Your task to perform on an android device: read, delete, or share a saved page in the chrome app Image 0: 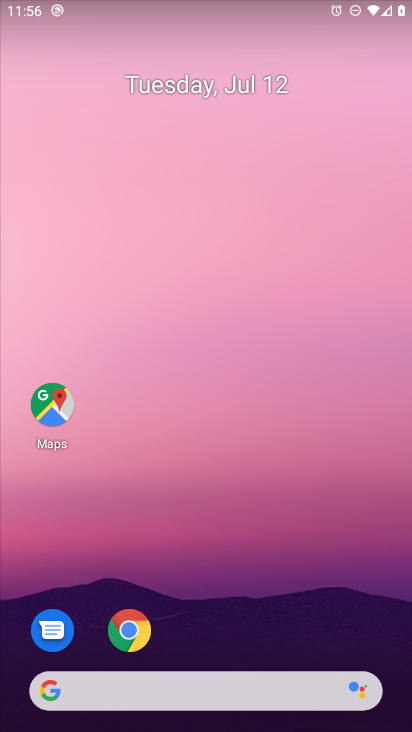
Step 0: press home button
Your task to perform on an android device: read, delete, or share a saved page in the chrome app Image 1: 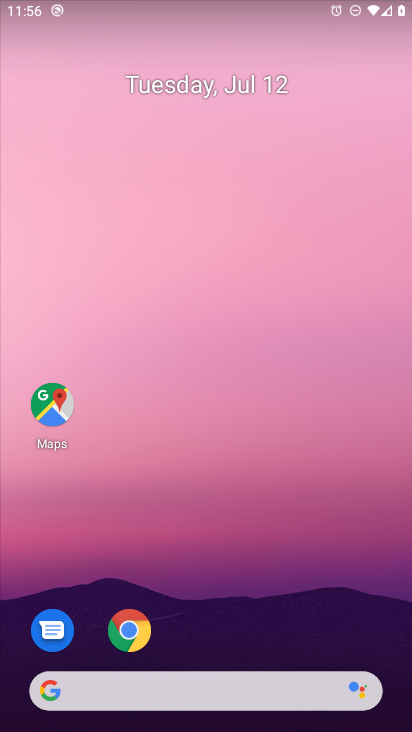
Step 1: drag from (211, 625) to (279, 115)
Your task to perform on an android device: read, delete, or share a saved page in the chrome app Image 2: 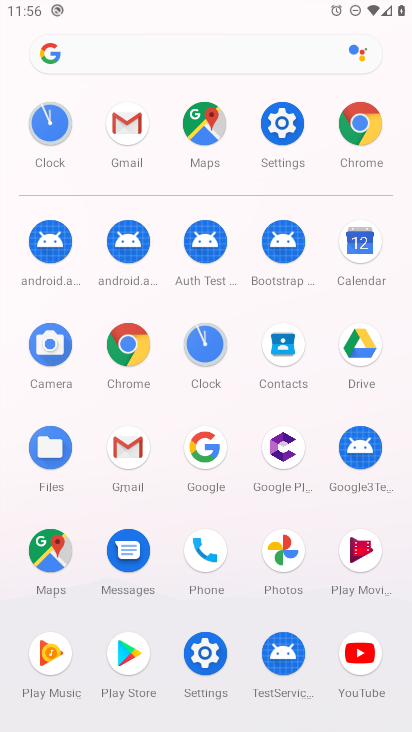
Step 2: click (363, 138)
Your task to perform on an android device: read, delete, or share a saved page in the chrome app Image 3: 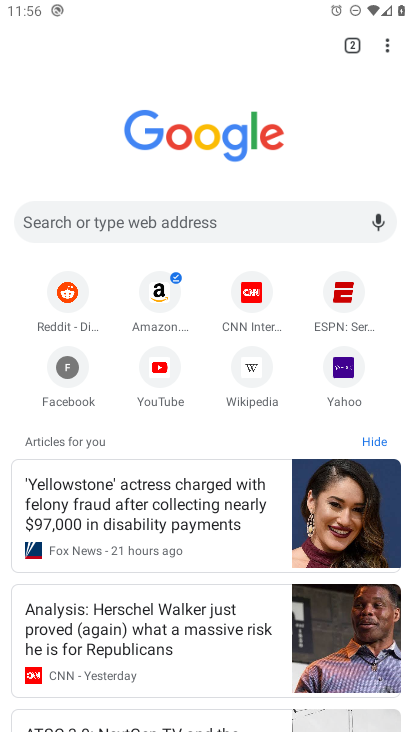
Step 3: click (391, 51)
Your task to perform on an android device: read, delete, or share a saved page in the chrome app Image 4: 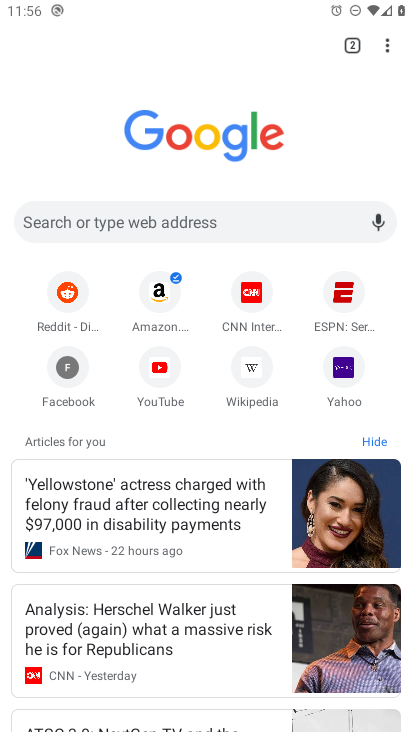
Step 4: click (391, 51)
Your task to perform on an android device: read, delete, or share a saved page in the chrome app Image 5: 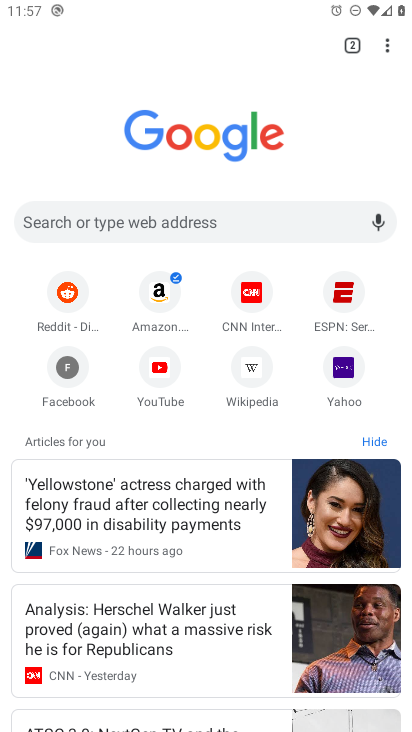
Step 5: click (385, 49)
Your task to perform on an android device: read, delete, or share a saved page in the chrome app Image 6: 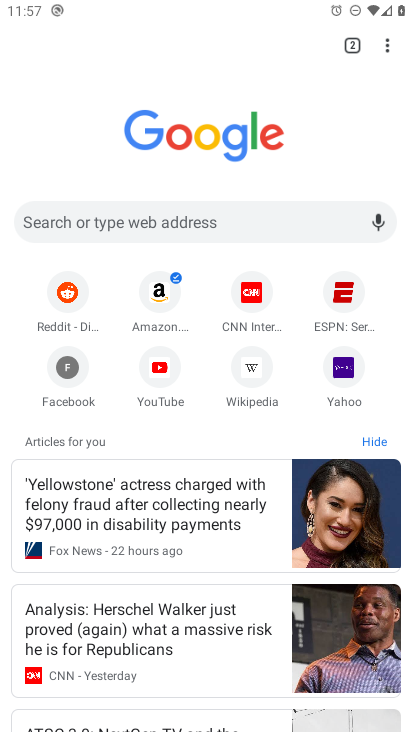
Step 6: click (385, 49)
Your task to perform on an android device: read, delete, or share a saved page in the chrome app Image 7: 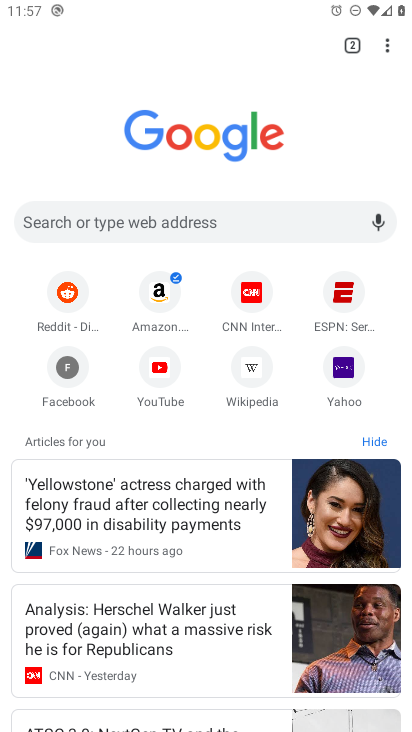
Step 7: drag from (386, 47) to (222, 298)
Your task to perform on an android device: read, delete, or share a saved page in the chrome app Image 8: 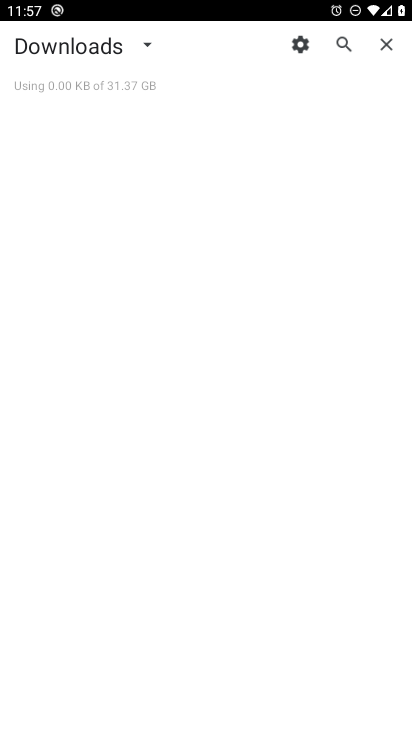
Step 8: click (150, 40)
Your task to perform on an android device: read, delete, or share a saved page in the chrome app Image 9: 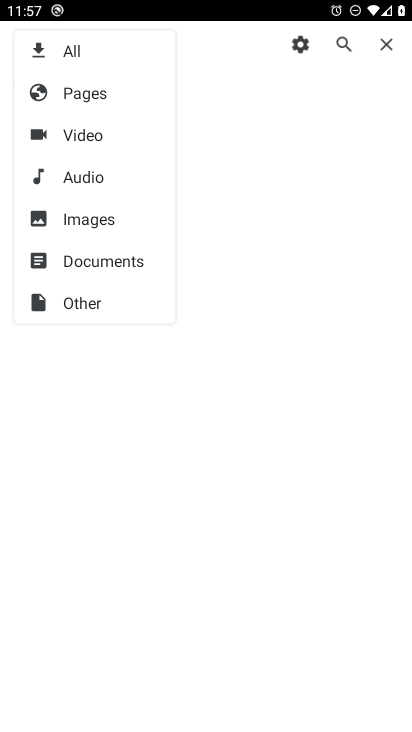
Step 9: click (63, 101)
Your task to perform on an android device: read, delete, or share a saved page in the chrome app Image 10: 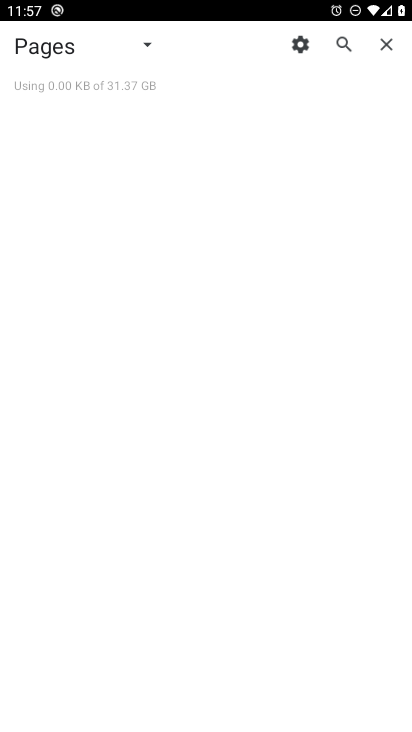
Step 10: task complete